Your task to perform on an android device: see sites visited before in the chrome app Image 0: 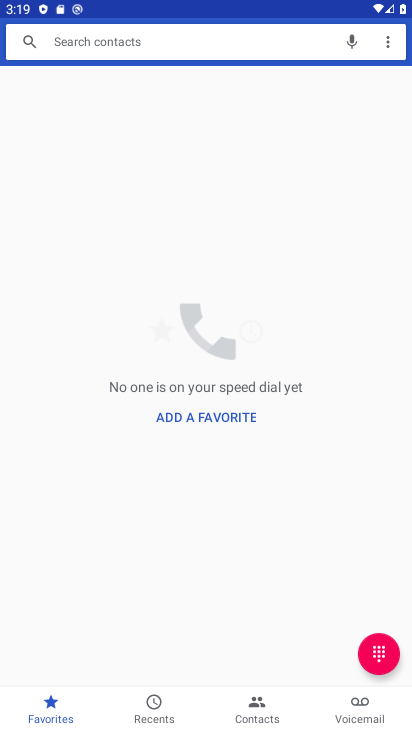
Step 0: press home button
Your task to perform on an android device: see sites visited before in the chrome app Image 1: 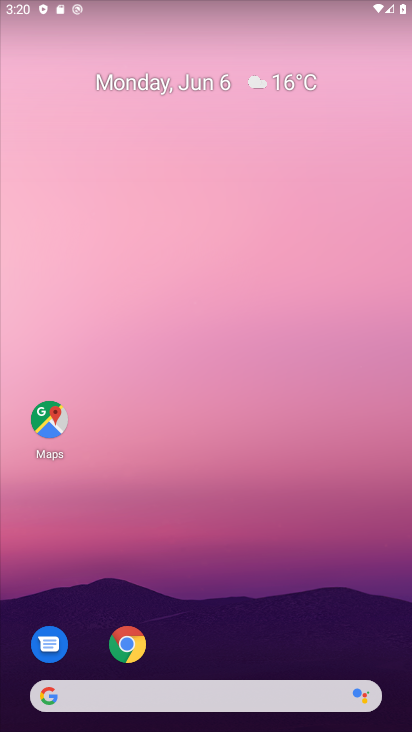
Step 1: click (130, 654)
Your task to perform on an android device: see sites visited before in the chrome app Image 2: 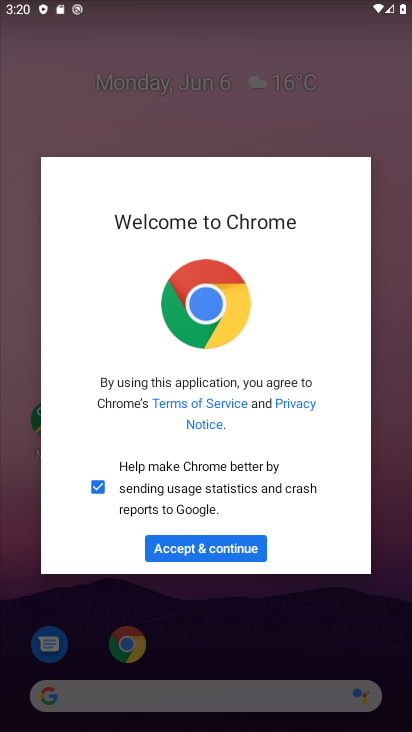
Step 2: click (197, 552)
Your task to perform on an android device: see sites visited before in the chrome app Image 3: 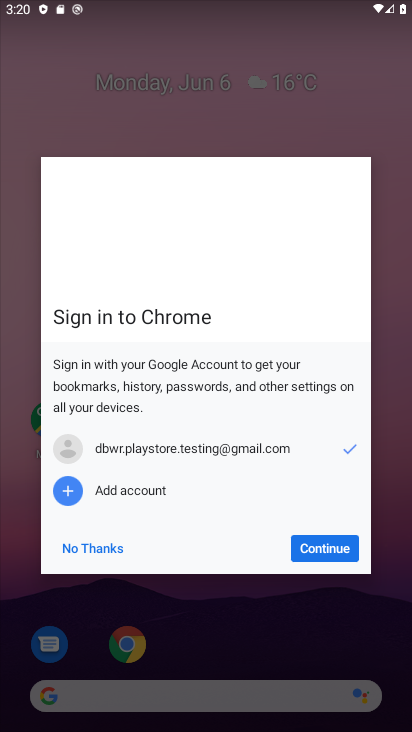
Step 3: click (331, 552)
Your task to perform on an android device: see sites visited before in the chrome app Image 4: 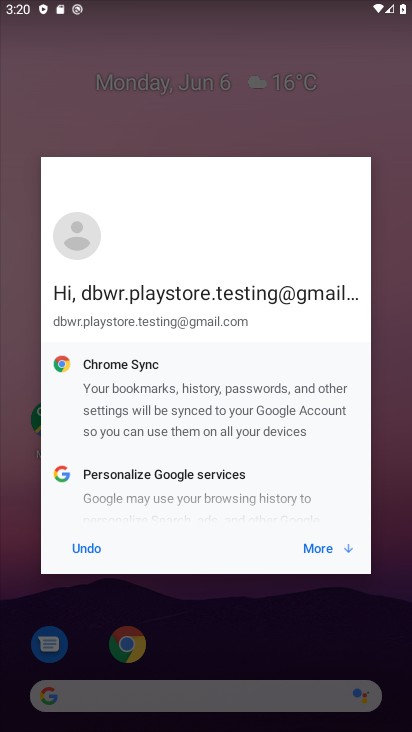
Step 4: click (343, 548)
Your task to perform on an android device: see sites visited before in the chrome app Image 5: 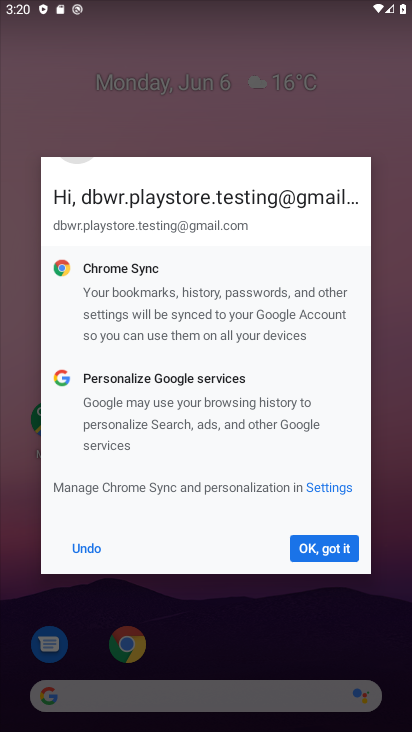
Step 5: click (341, 544)
Your task to perform on an android device: see sites visited before in the chrome app Image 6: 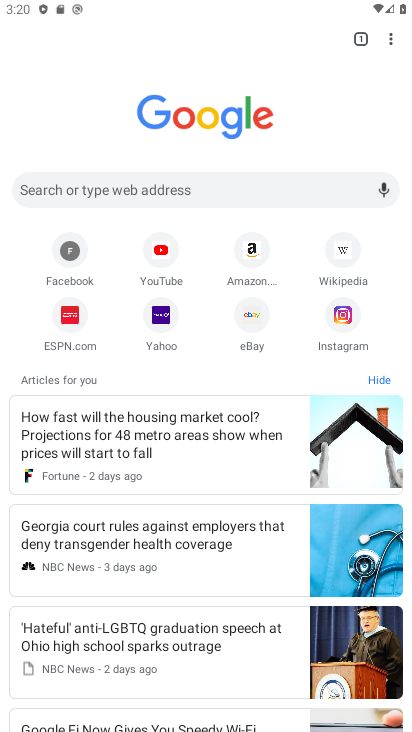
Step 6: click (390, 42)
Your task to perform on an android device: see sites visited before in the chrome app Image 7: 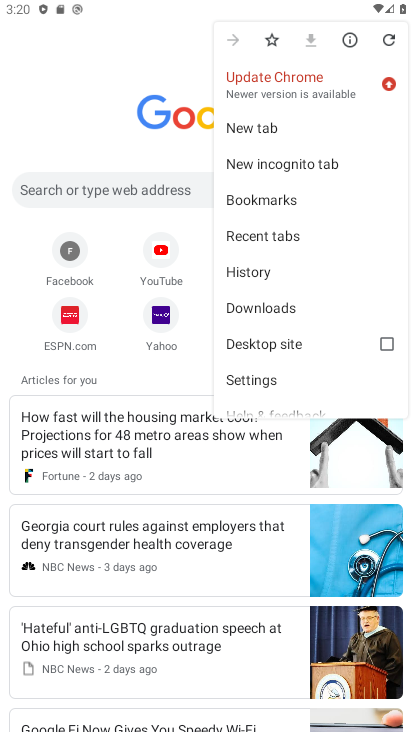
Step 7: click (263, 229)
Your task to perform on an android device: see sites visited before in the chrome app Image 8: 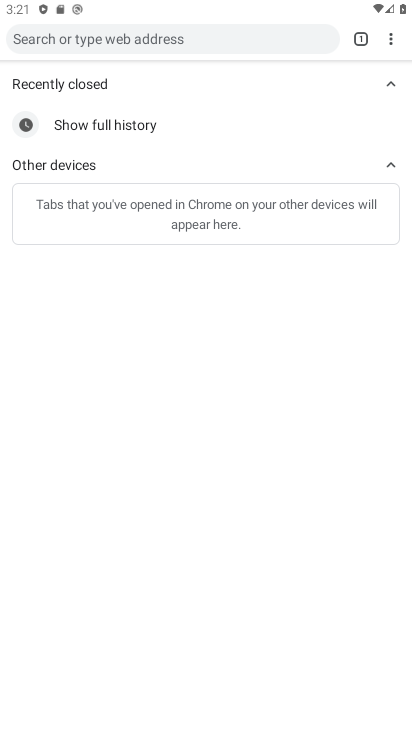
Step 8: task complete